Your task to perform on an android device: turn pop-ups off in chrome Image 0: 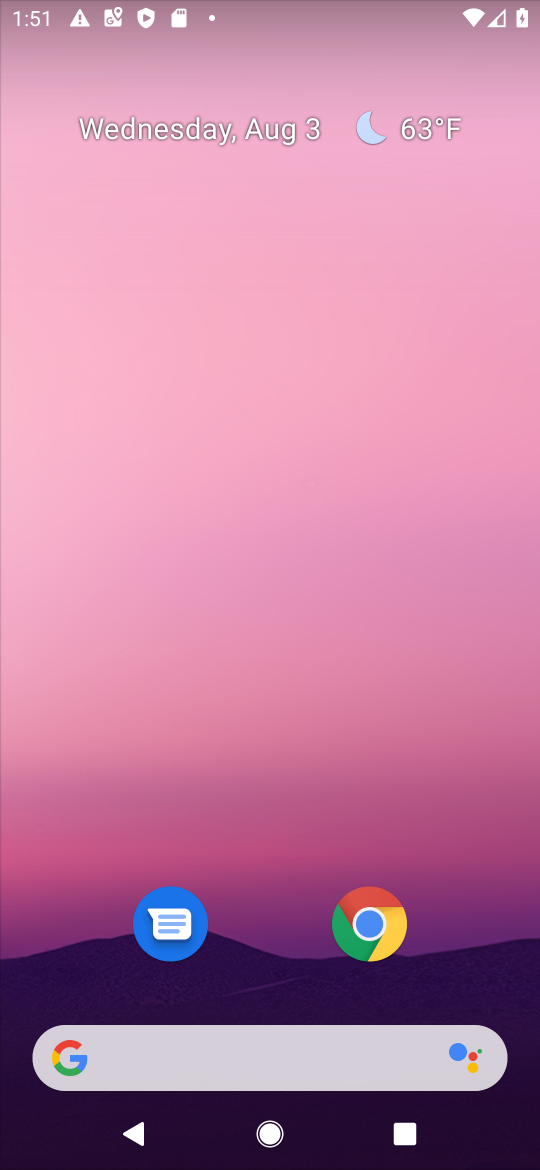
Step 0: click (367, 912)
Your task to perform on an android device: turn pop-ups off in chrome Image 1: 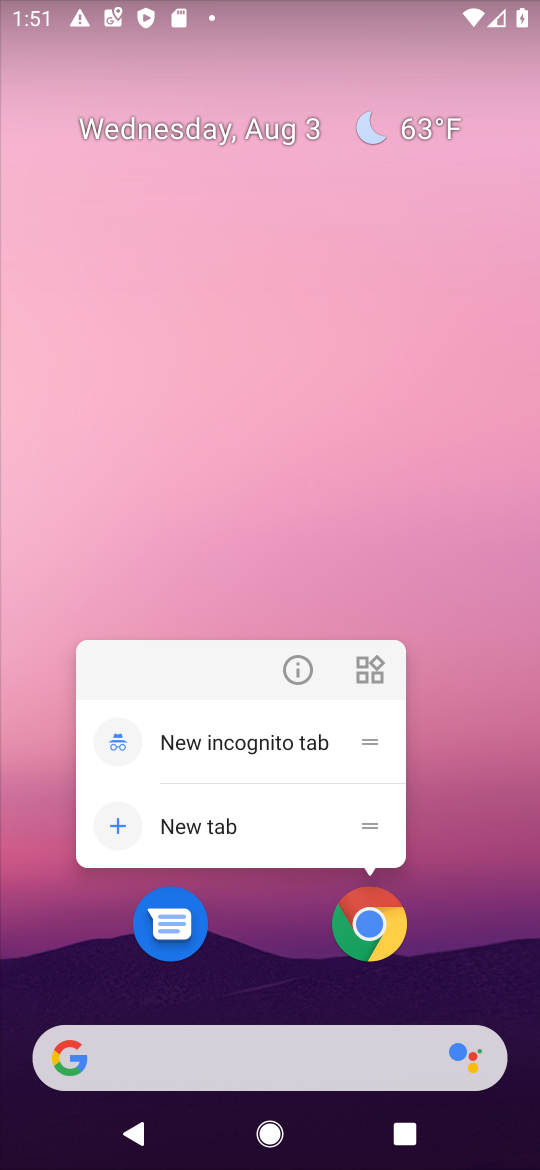
Step 1: click (370, 912)
Your task to perform on an android device: turn pop-ups off in chrome Image 2: 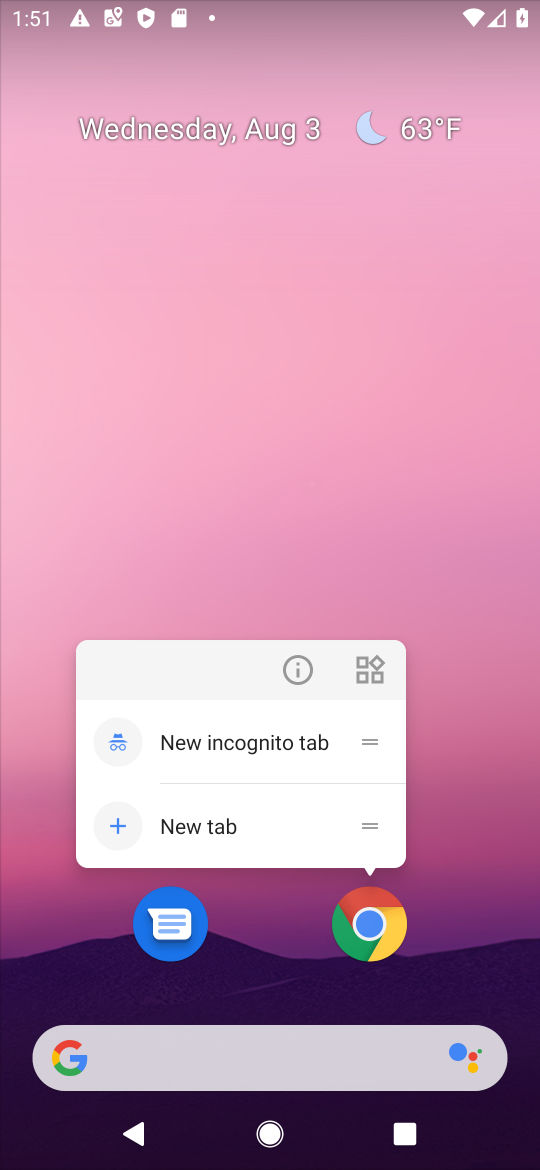
Step 2: click (370, 912)
Your task to perform on an android device: turn pop-ups off in chrome Image 3: 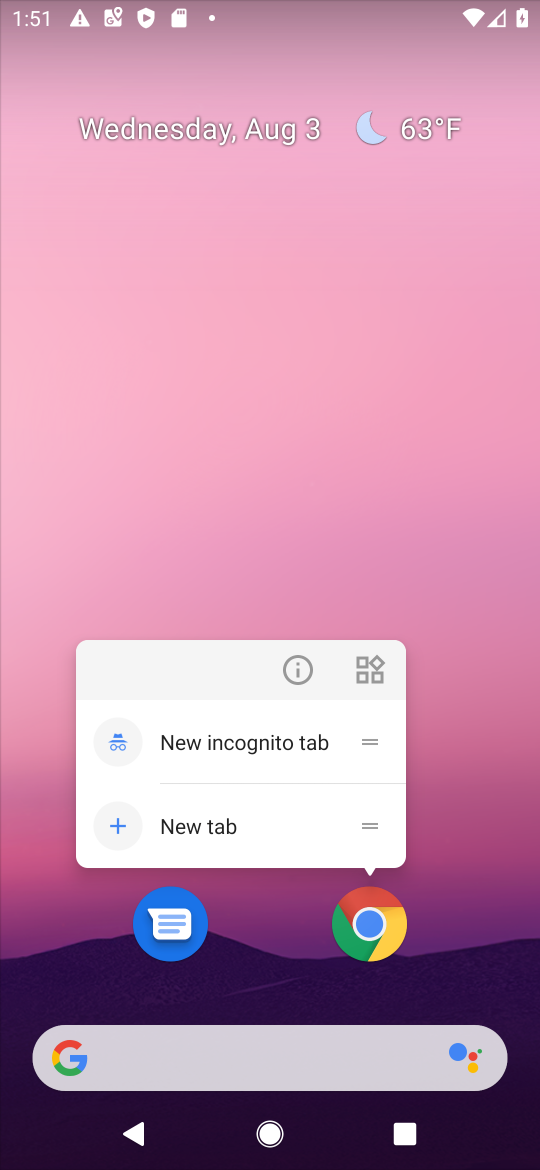
Step 3: click (212, 1005)
Your task to perform on an android device: turn pop-ups off in chrome Image 4: 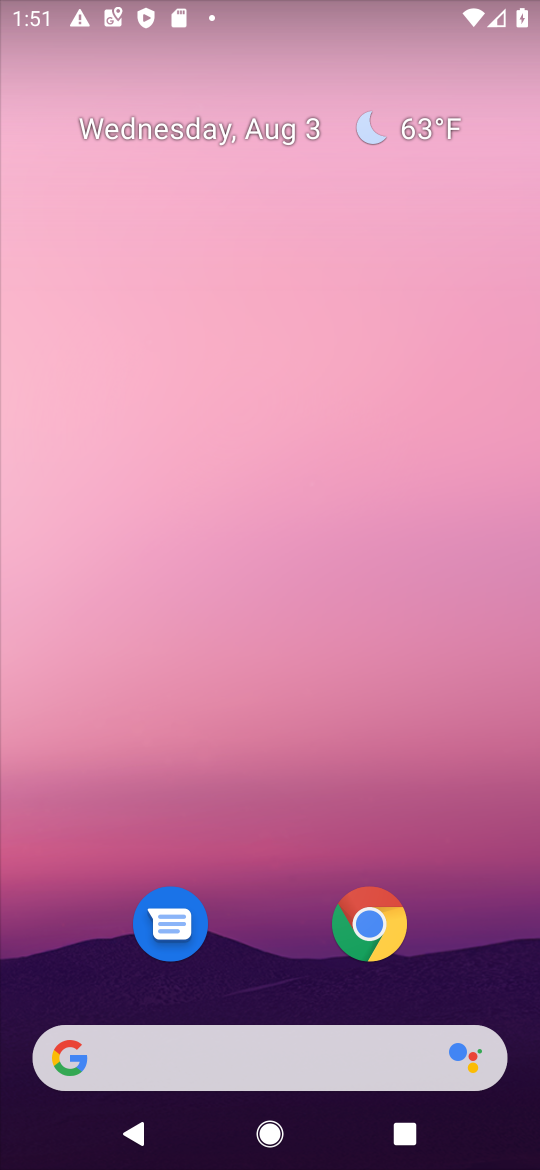
Step 4: click (366, 922)
Your task to perform on an android device: turn pop-ups off in chrome Image 5: 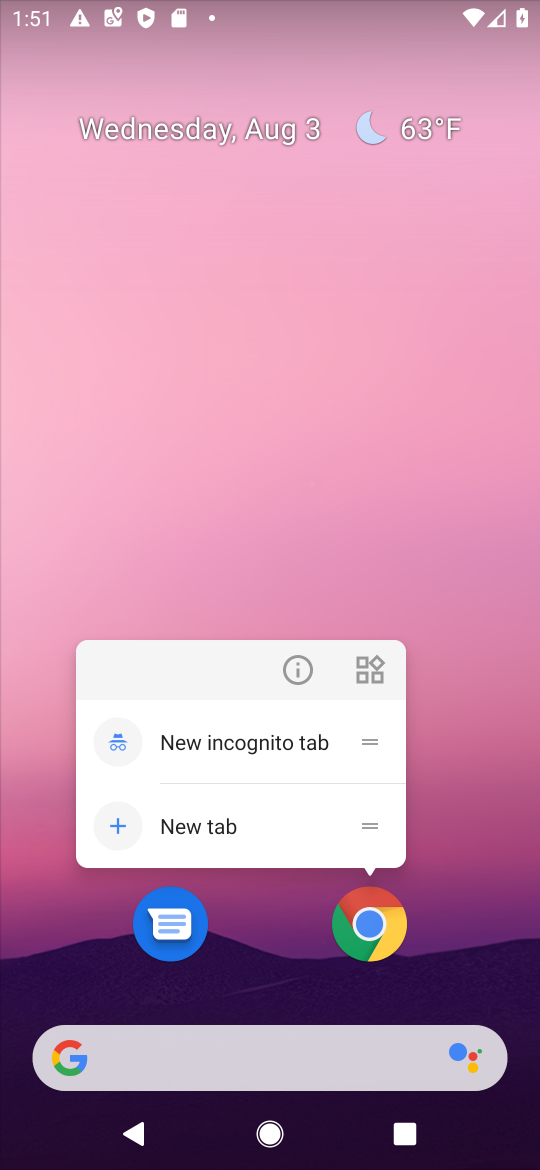
Step 5: click (474, 856)
Your task to perform on an android device: turn pop-ups off in chrome Image 6: 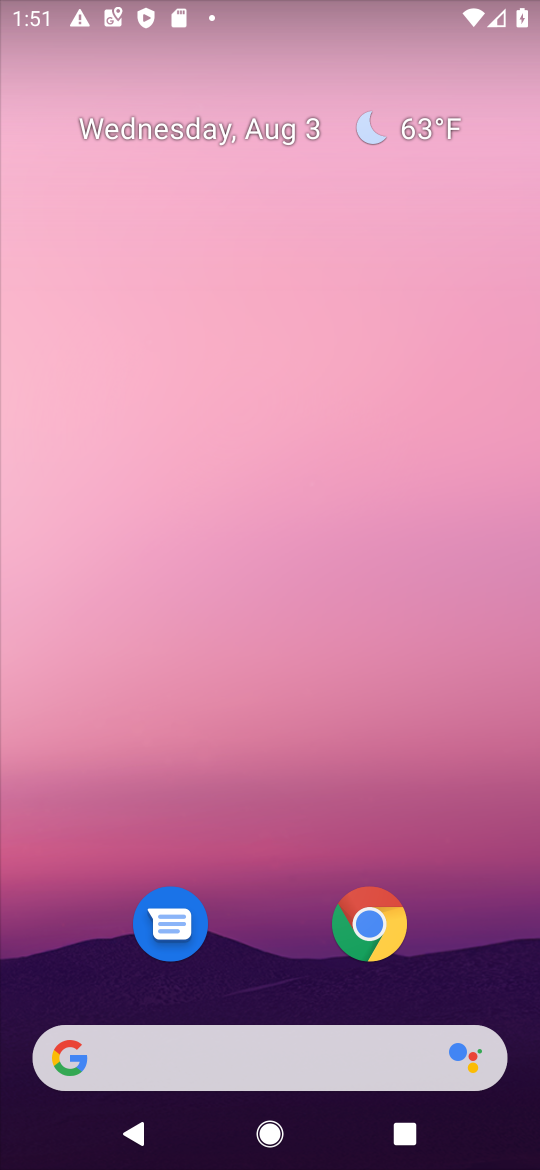
Step 6: drag from (461, 979) to (480, 93)
Your task to perform on an android device: turn pop-ups off in chrome Image 7: 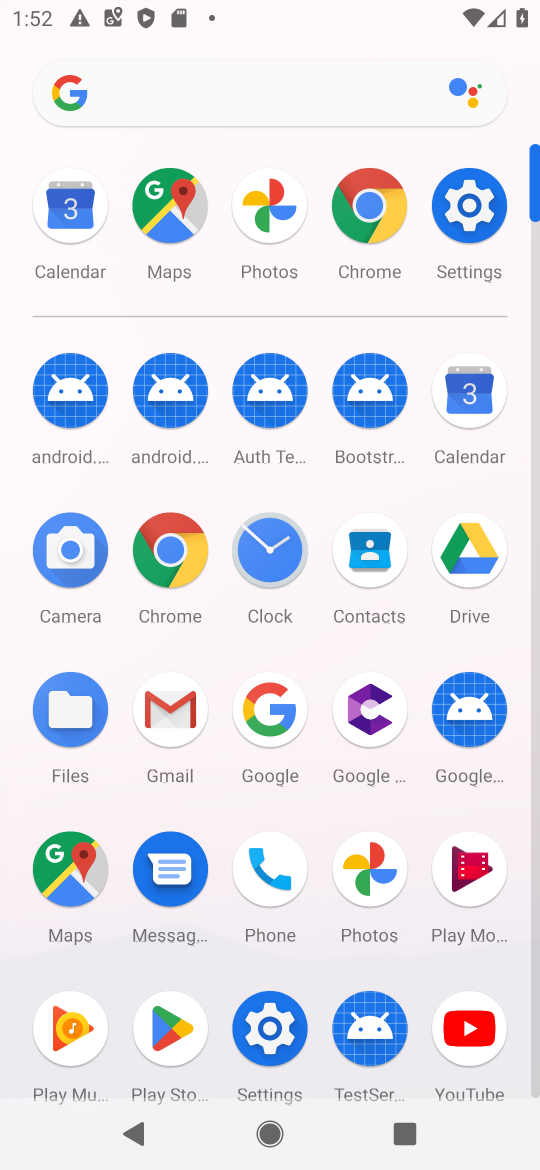
Step 7: click (157, 536)
Your task to perform on an android device: turn pop-ups off in chrome Image 8: 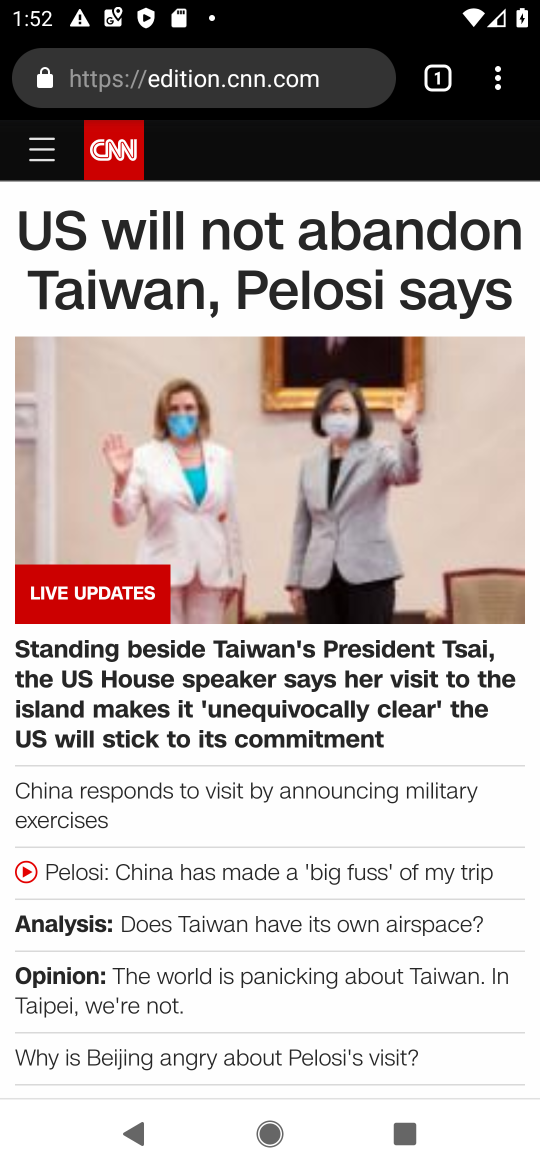
Step 8: click (499, 81)
Your task to perform on an android device: turn pop-ups off in chrome Image 9: 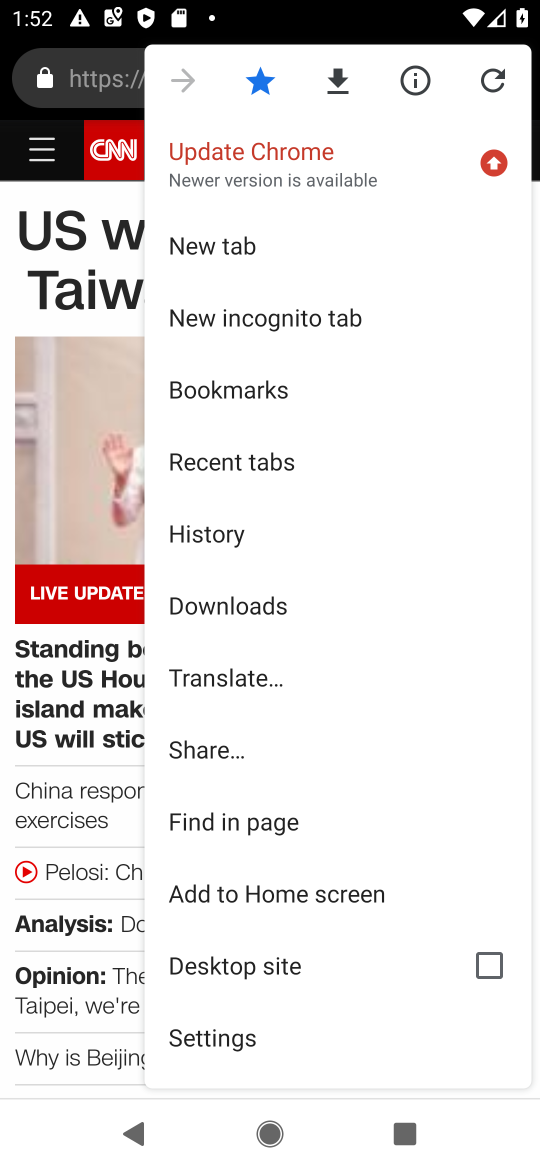
Step 9: click (266, 1036)
Your task to perform on an android device: turn pop-ups off in chrome Image 10: 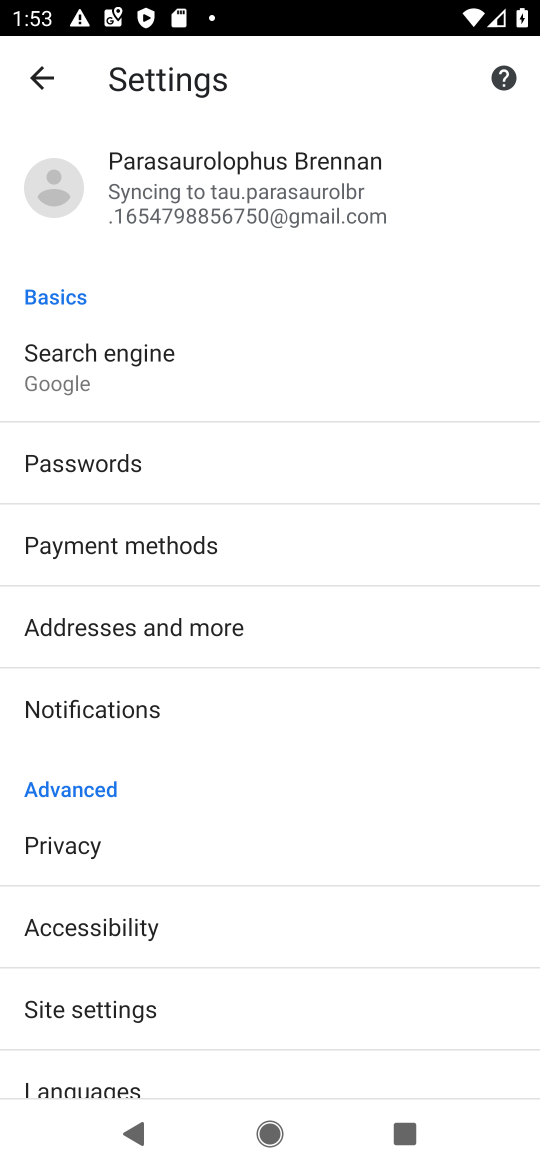
Step 10: click (174, 1006)
Your task to perform on an android device: turn pop-ups off in chrome Image 11: 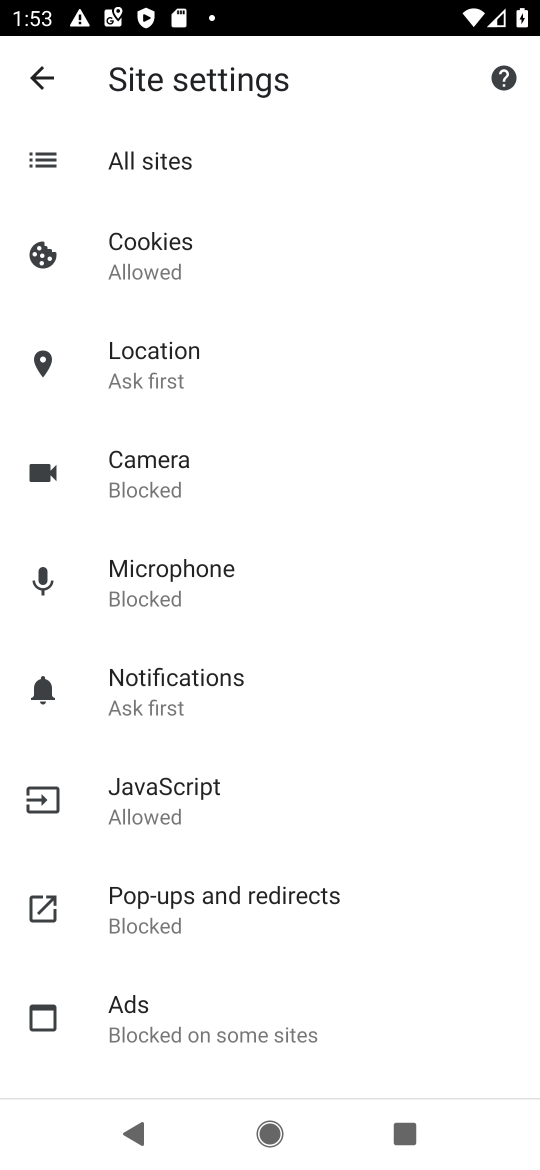
Step 11: click (182, 903)
Your task to perform on an android device: turn pop-ups off in chrome Image 12: 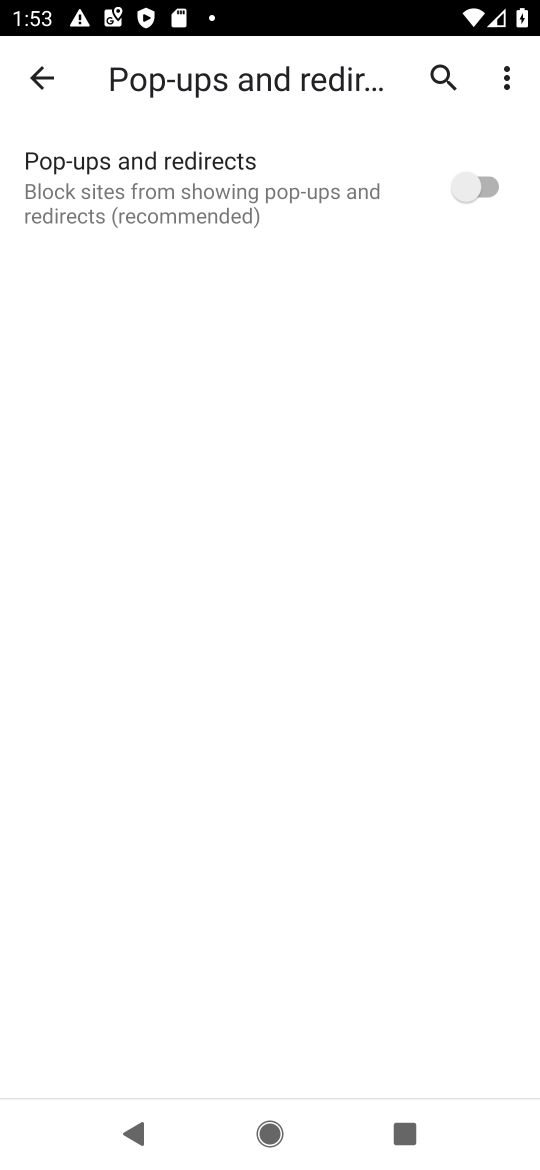
Step 12: task complete